Your task to perform on an android device: Open location settings Image 0: 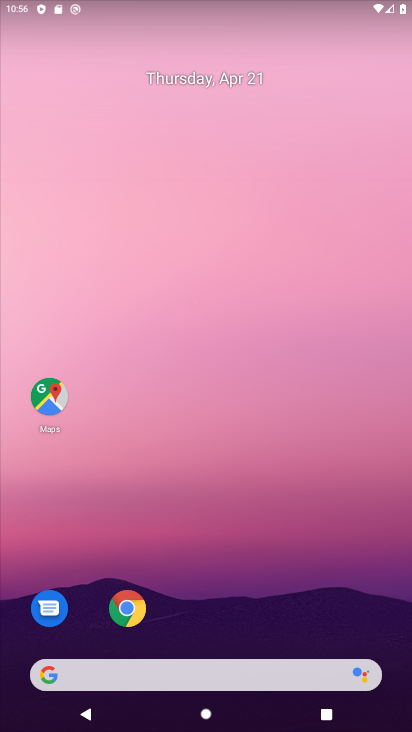
Step 0: drag from (133, 622) to (222, 317)
Your task to perform on an android device: Open location settings Image 1: 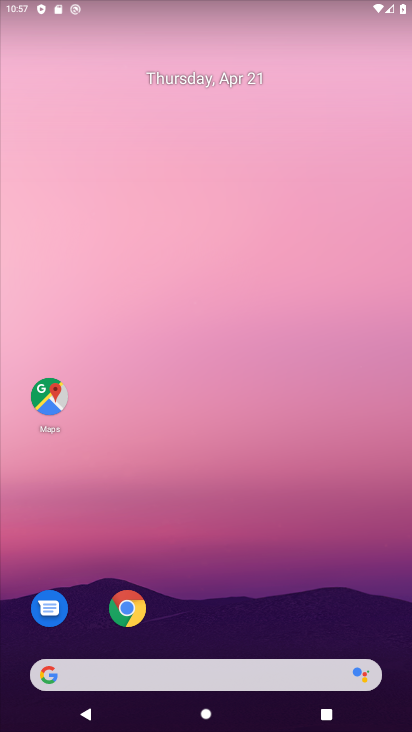
Step 1: drag from (149, 663) to (200, 283)
Your task to perform on an android device: Open location settings Image 2: 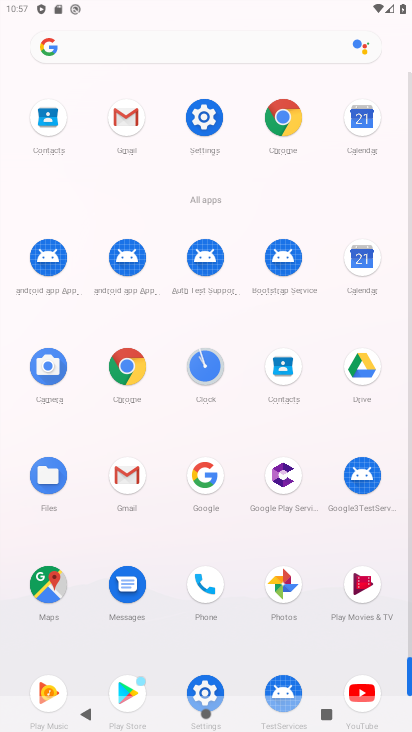
Step 2: click (205, 687)
Your task to perform on an android device: Open location settings Image 3: 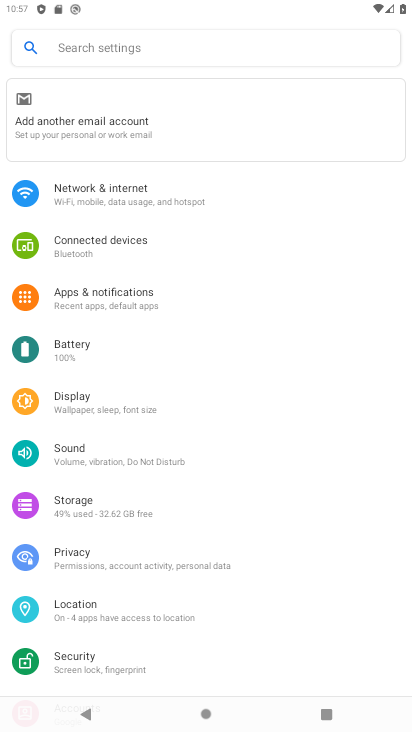
Step 3: click (129, 618)
Your task to perform on an android device: Open location settings Image 4: 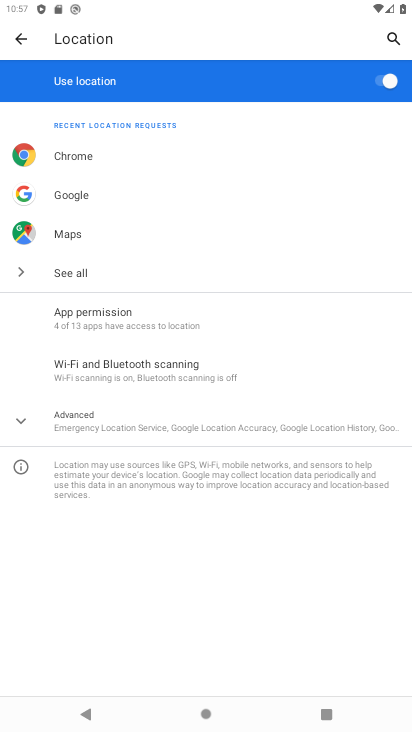
Step 4: task complete